Your task to perform on an android device: change text size in settings app Image 0: 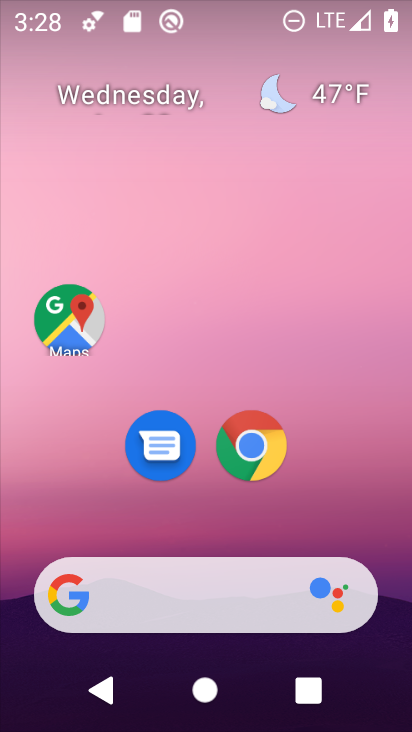
Step 0: drag from (314, 536) to (318, 114)
Your task to perform on an android device: change text size in settings app Image 1: 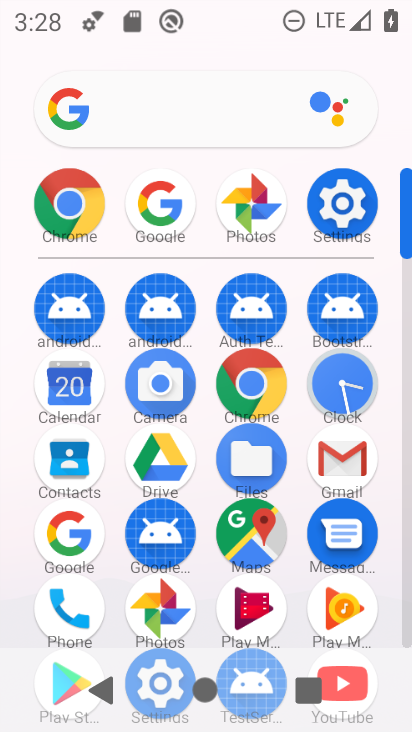
Step 1: click (347, 203)
Your task to perform on an android device: change text size in settings app Image 2: 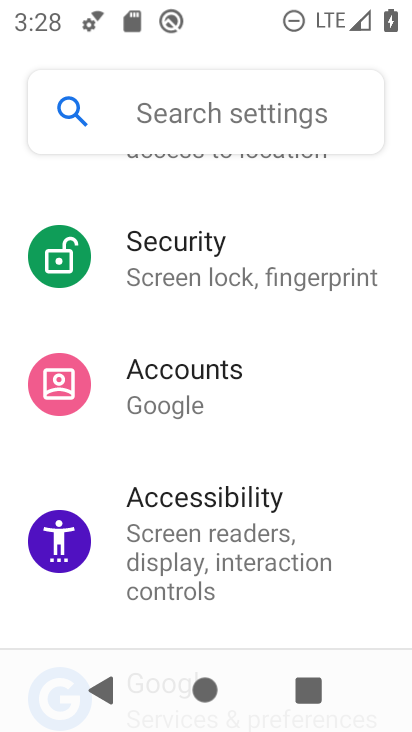
Step 2: click (246, 493)
Your task to perform on an android device: change text size in settings app Image 3: 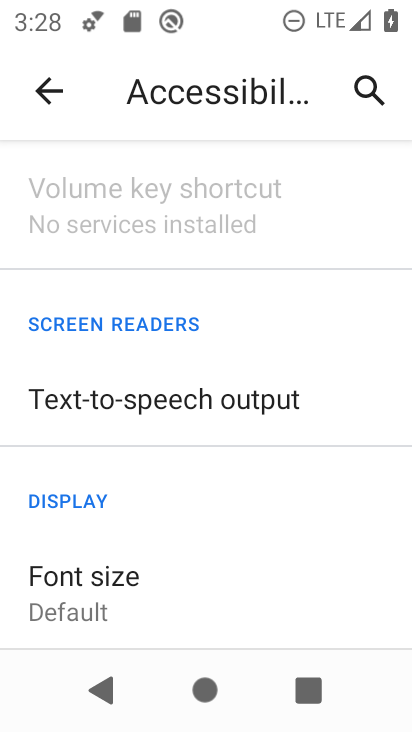
Step 3: drag from (227, 547) to (281, 401)
Your task to perform on an android device: change text size in settings app Image 4: 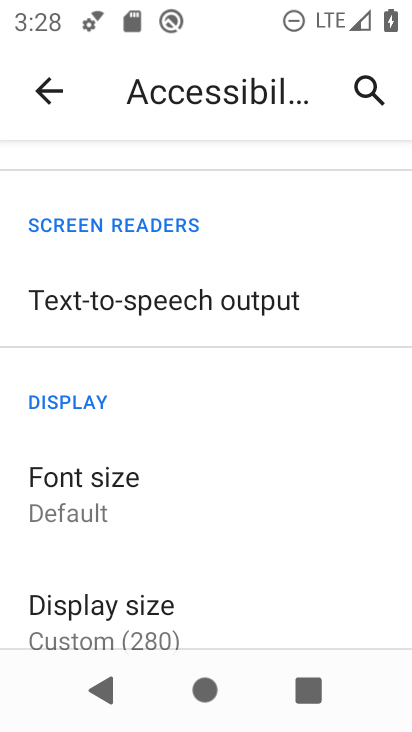
Step 4: click (120, 479)
Your task to perform on an android device: change text size in settings app Image 5: 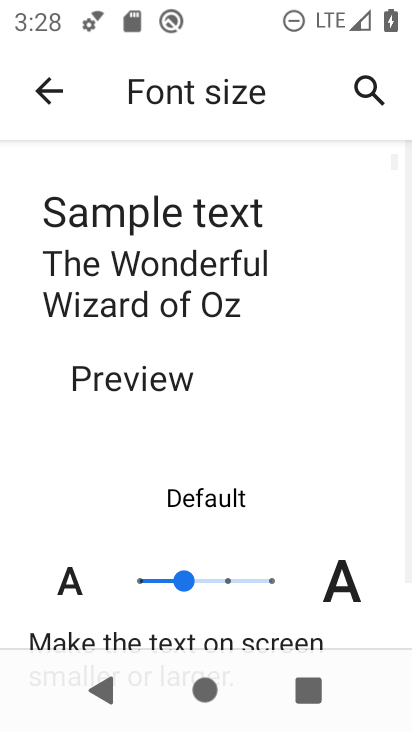
Step 5: click (230, 579)
Your task to perform on an android device: change text size in settings app Image 6: 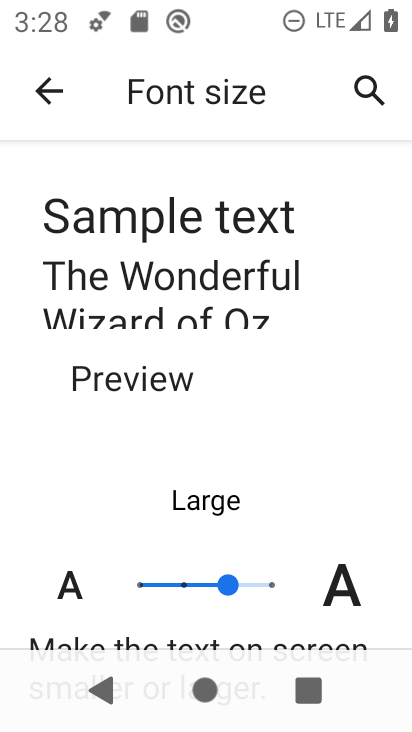
Step 6: task complete